Your task to perform on an android device: Install the Facebook app Image 0: 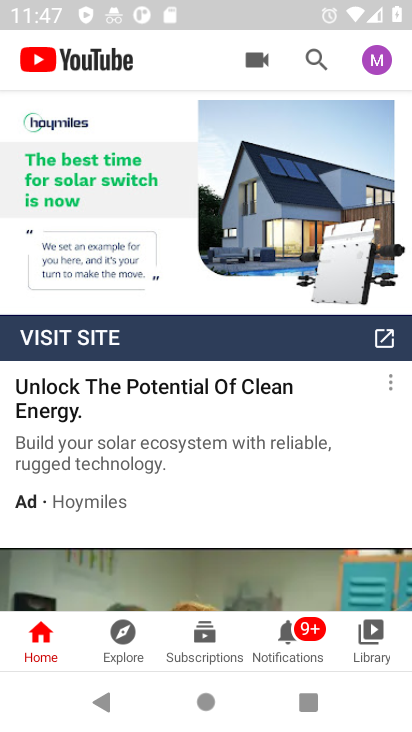
Step 0: press home button
Your task to perform on an android device: Install the Facebook app Image 1: 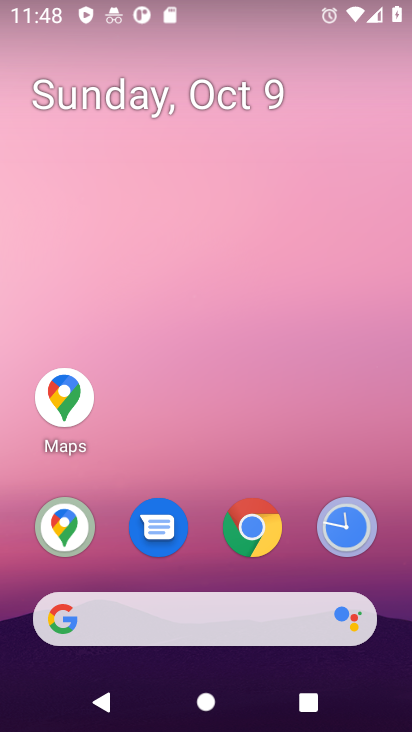
Step 1: drag from (191, 550) to (260, 89)
Your task to perform on an android device: Install the Facebook app Image 2: 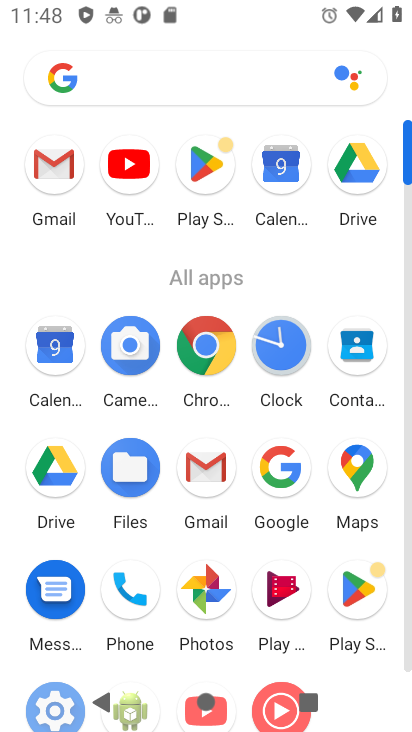
Step 2: click (208, 176)
Your task to perform on an android device: Install the Facebook app Image 3: 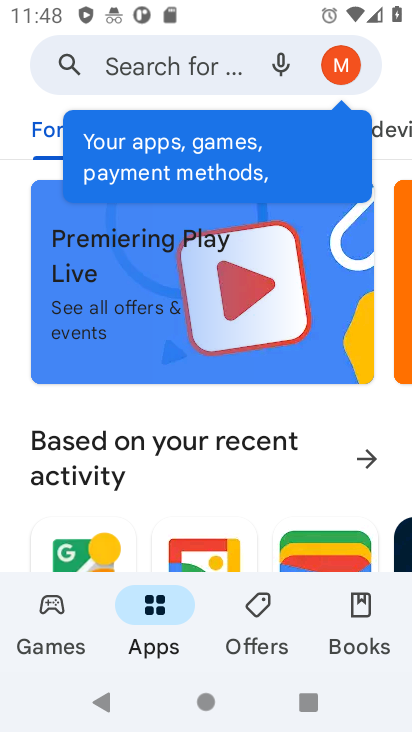
Step 3: click (234, 76)
Your task to perform on an android device: Install the Facebook app Image 4: 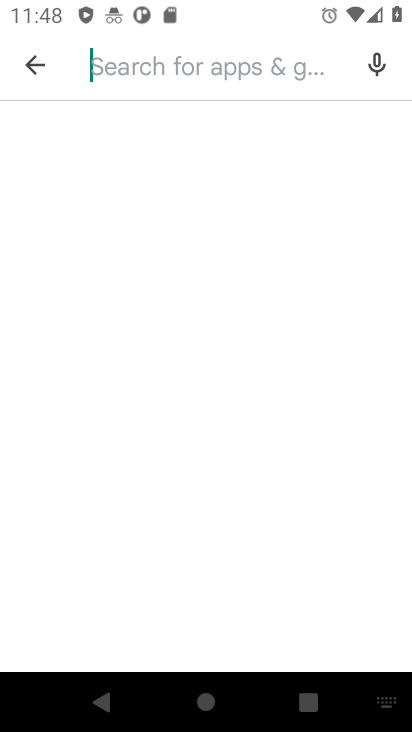
Step 4: type "facebook"
Your task to perform on an android device: Install the Facebook app Image 5: 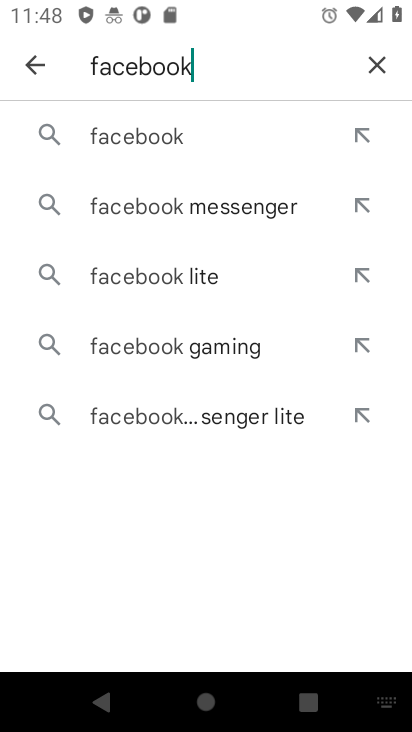
Step 5: click (183, 125)
Your task to perform on an android device: Install the Facebook app Image 6: 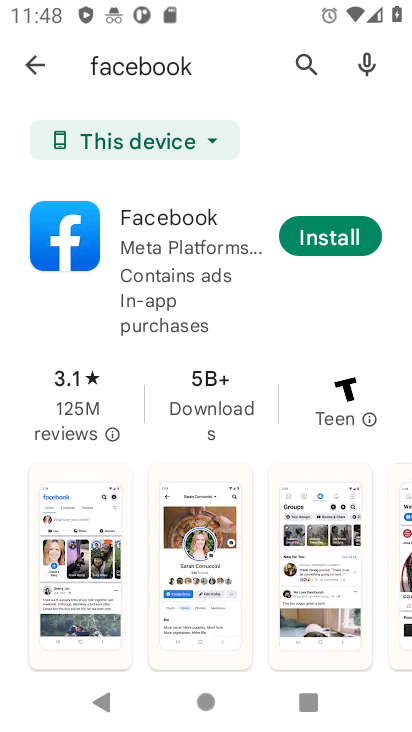
Step 6: click (295, 247)
Your task to perform on an android device: Install the Facebook app Image 7: 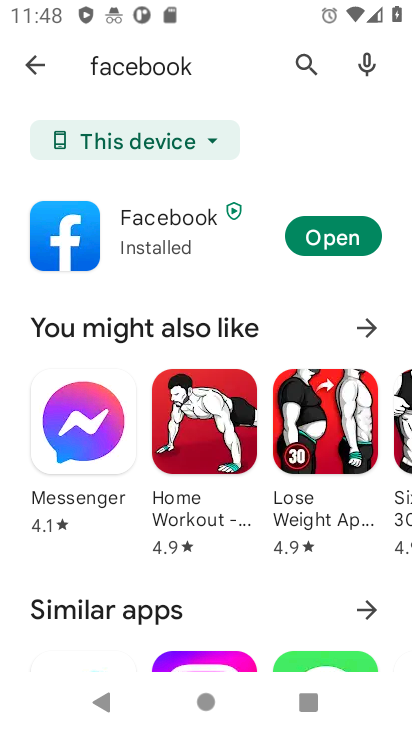
Step 7: task complete